Your task to perform on an android device: Go to Yahoo.com Image 0: 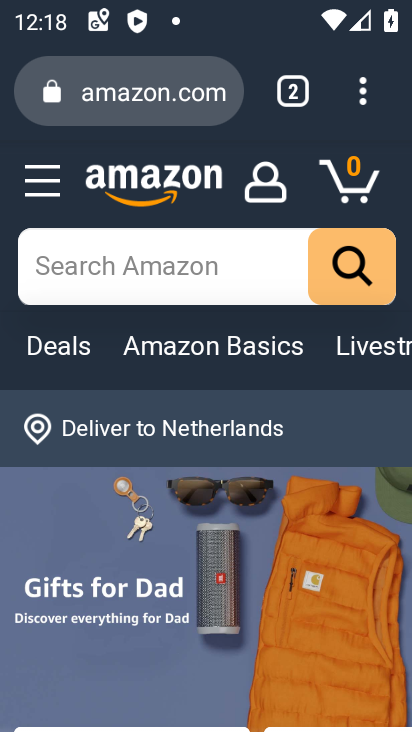
Step 0: click (215, 98)
Your task to perform on an android device: Go to Yahoo.com Image 1: 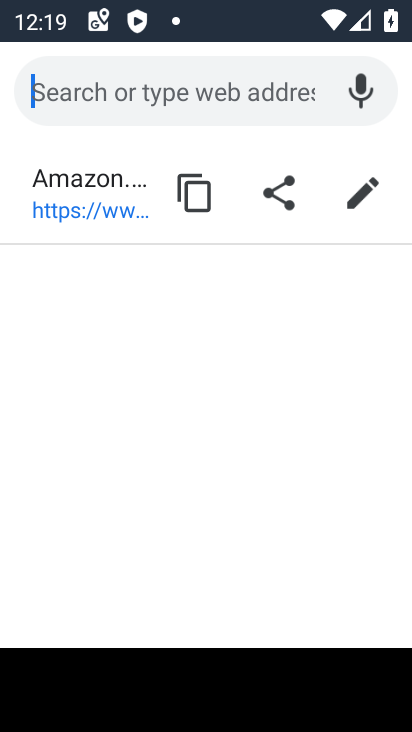
Step 1: type "Yahoo.com"
Your task to perform on an android device: Go to Yahoo.com Image 2: 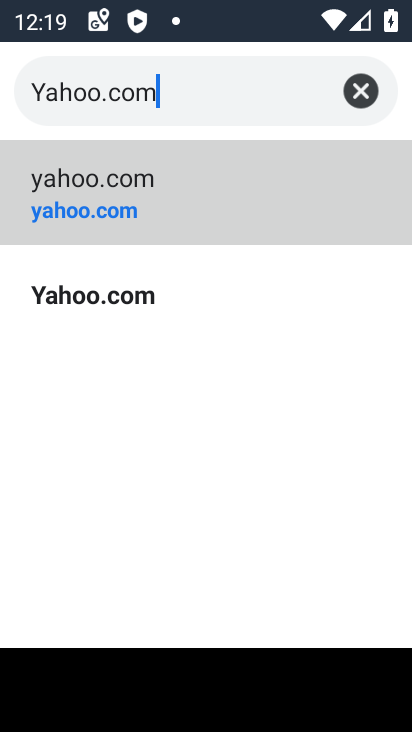
Step 2: type ""
Your task to perform on an android device: Go to Yahoo.com Image 3: 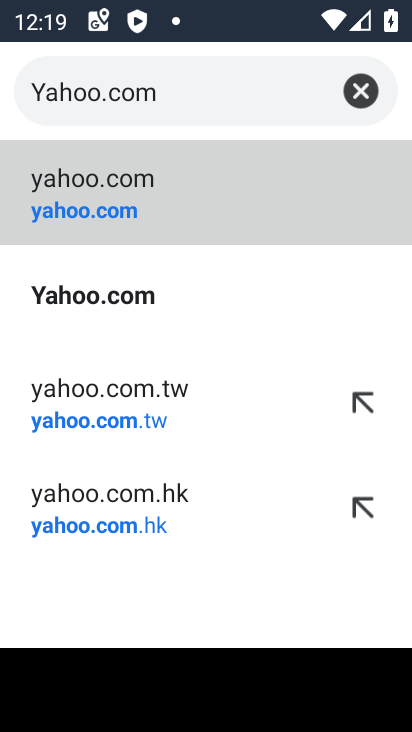
Step 3: click (138, 205)
Your task to perform on an android device: Go to Yahoo.com Image 4: 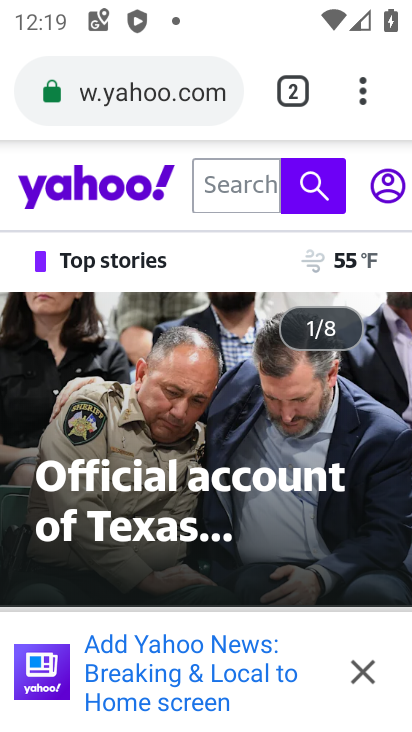
Step 4: task complete